Your task to perform on an android device: change text size in settings app Image 0: 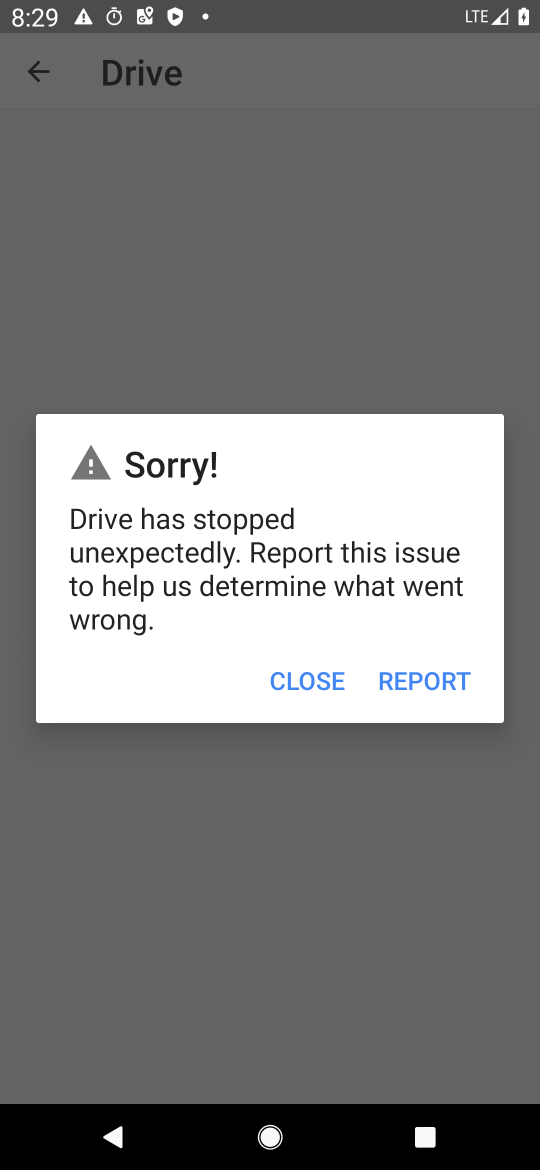
Step 0: press home button
Your task to perform on an android device: change text size in settings app Image 1: 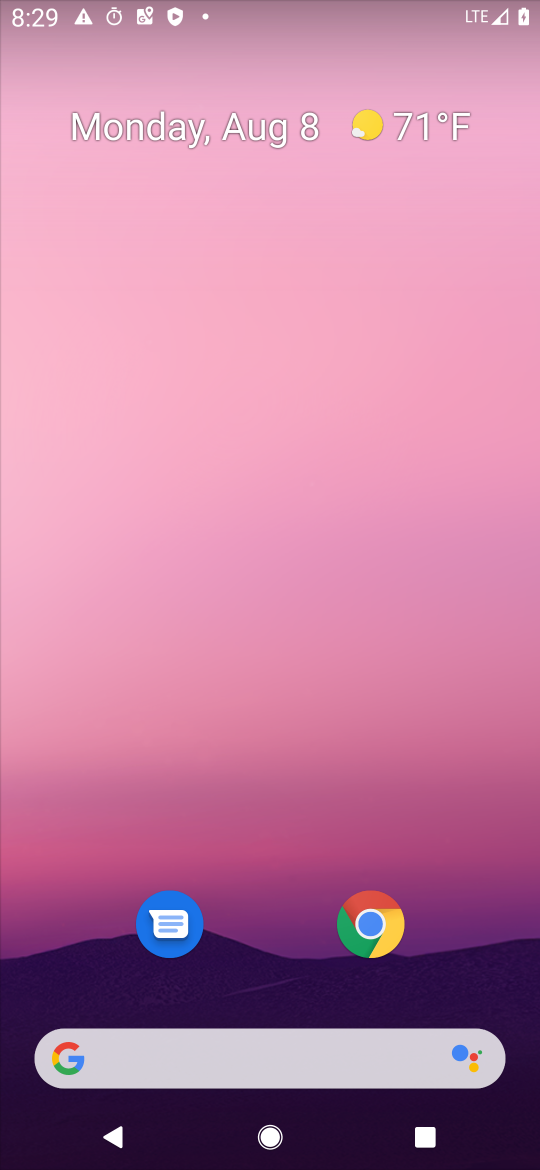
Step 1: drag from (231, 866) to (119, 75)
Your task to perform on an android device: change text size in settings app Image 2: 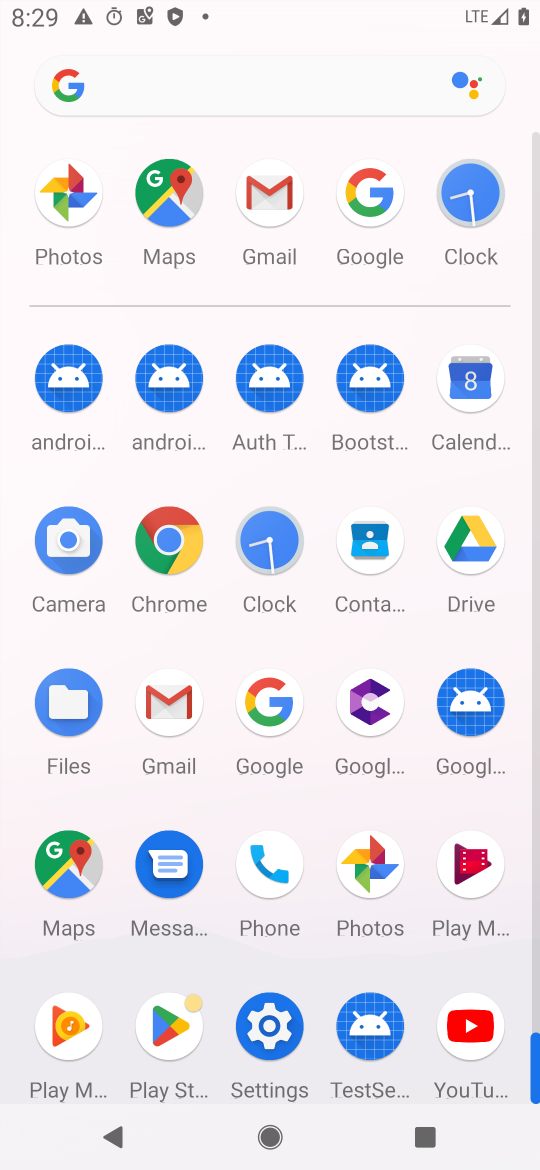
Step 2: click (257, 997)
Your task to perform on an android device: change text size in settings app Image 3: 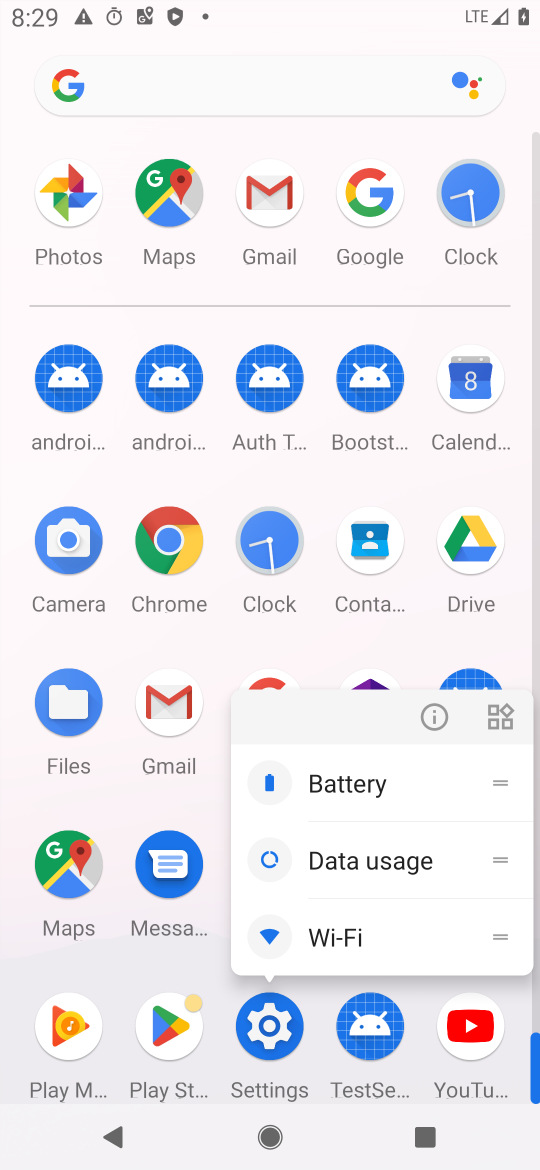
Step 3: click (421, 703)
Your task to perform on an android device: change text size in settings app Image 4: 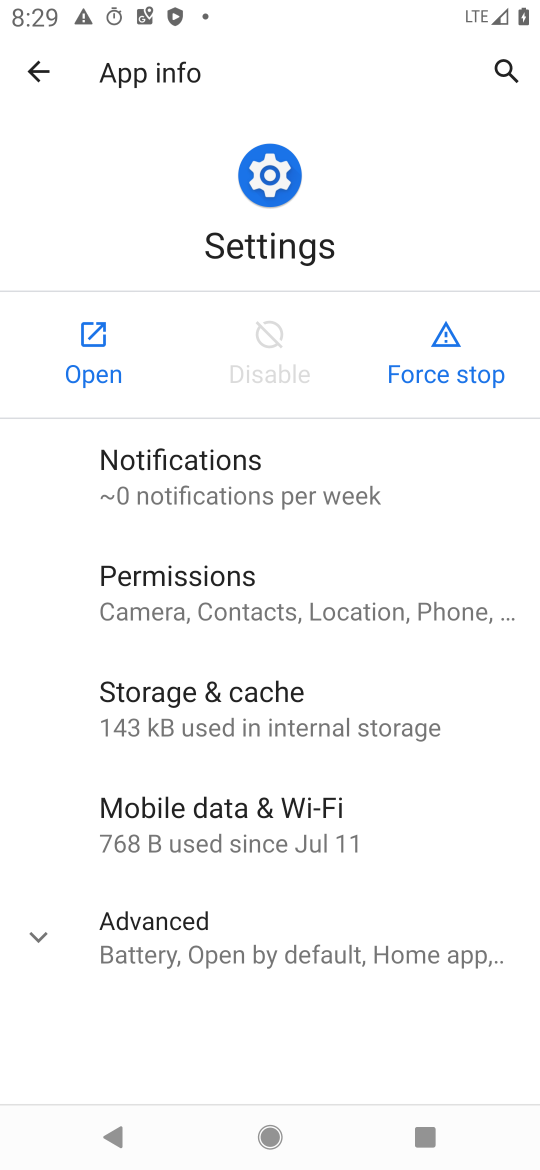
Step 4: click (98, 357)
Your task to perform on an android device: change text size in settings app Image 5: 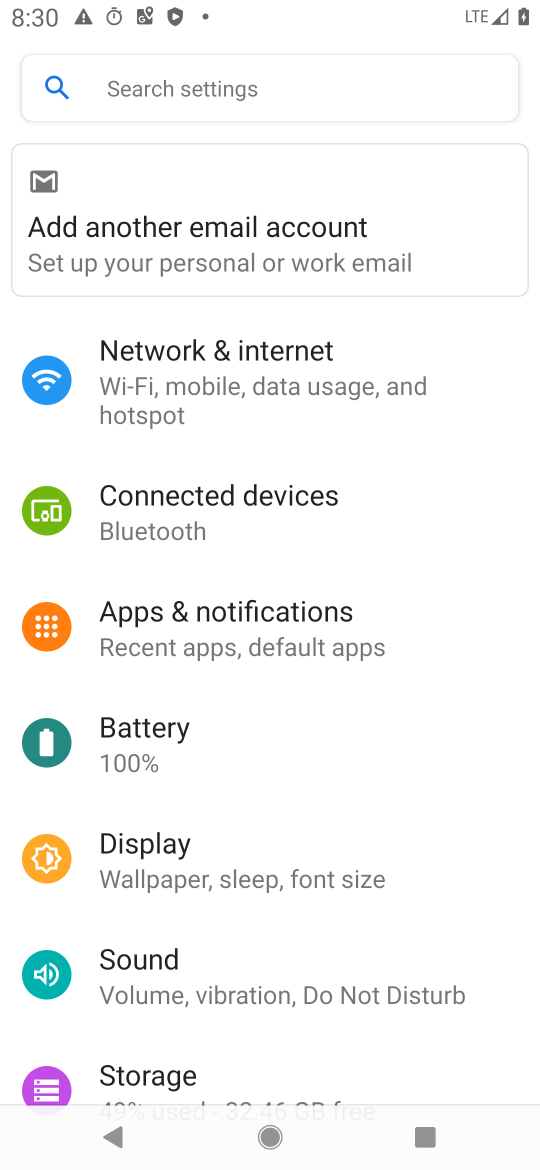
Step 5: drag from (171, 1016) to (138, 352)
Your task to perform on an android device: change text size in settings app Image 6: 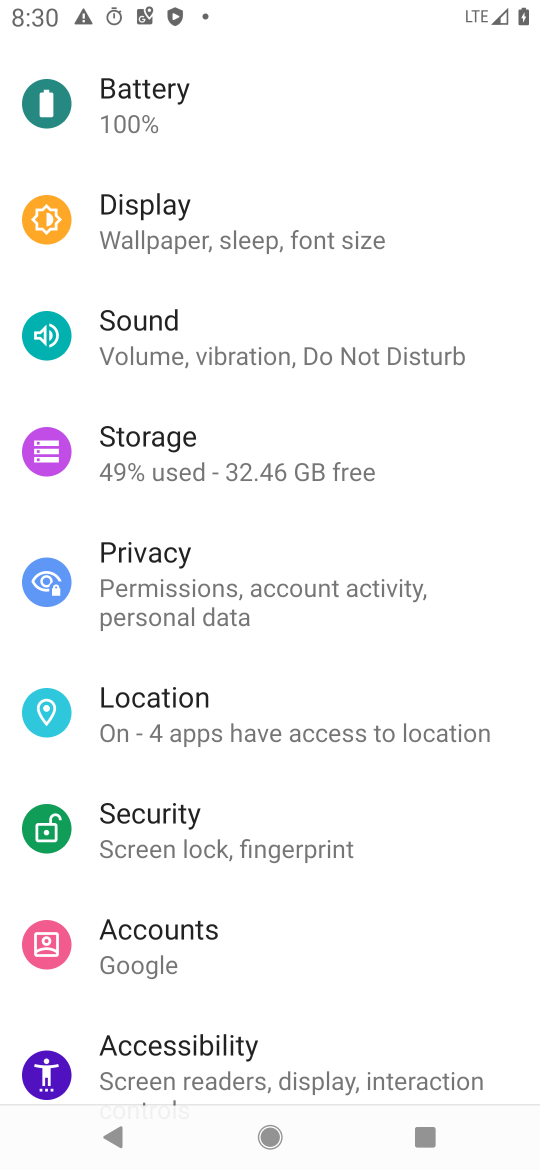
Step 6: click (188, 211)
Your task to perform on an android device: change text size in settings app Image 7: 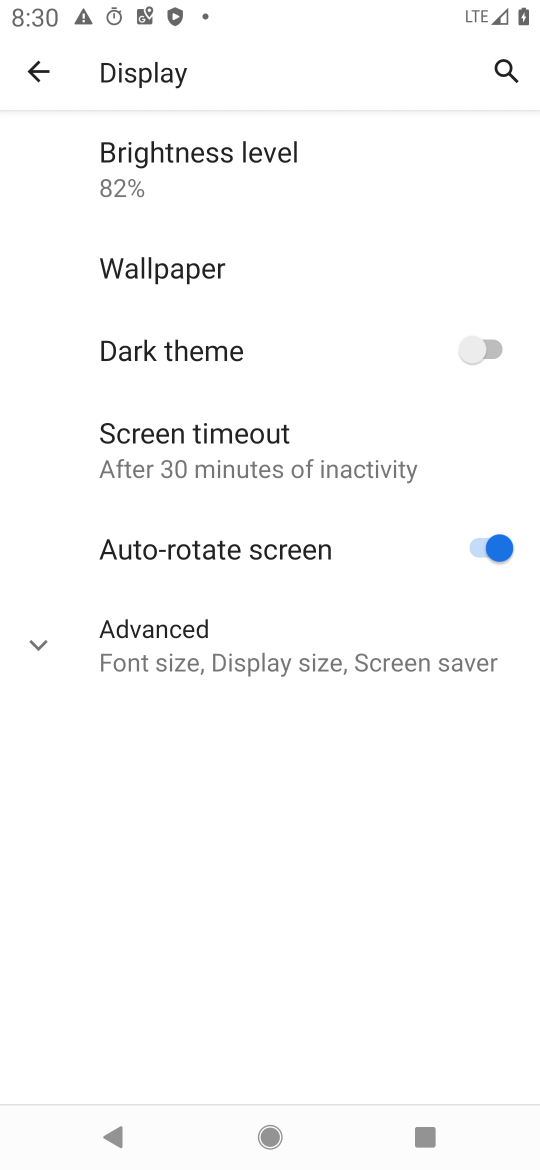
Step 7: click (239, 664)
Your task to perform on an android device: change text size in settings app Image 8: 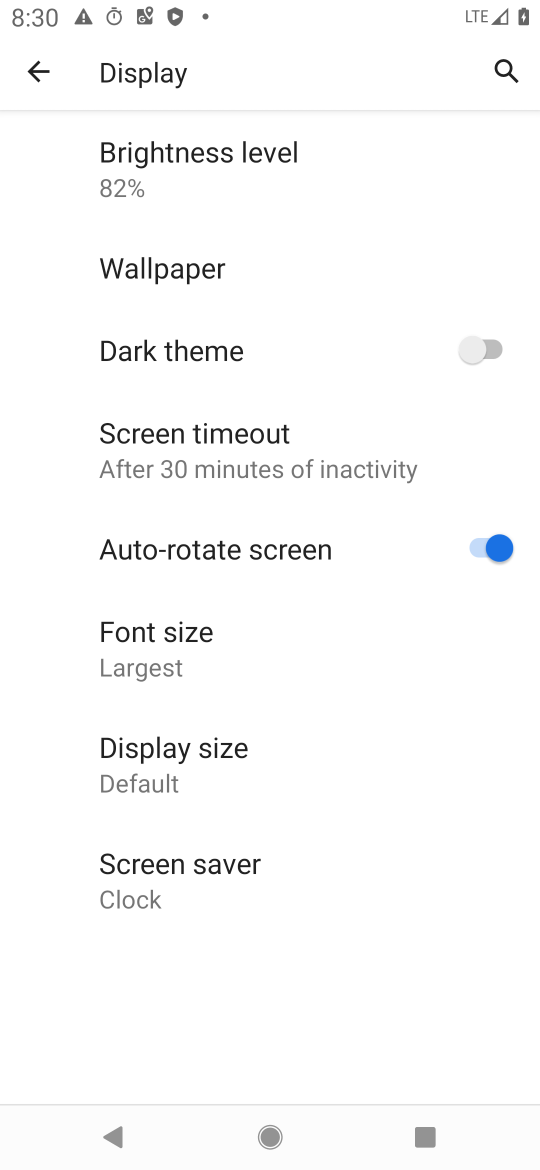
Step 8: click (188, 660)
Your task to perform on an android device: change text size in settings app Image 9: 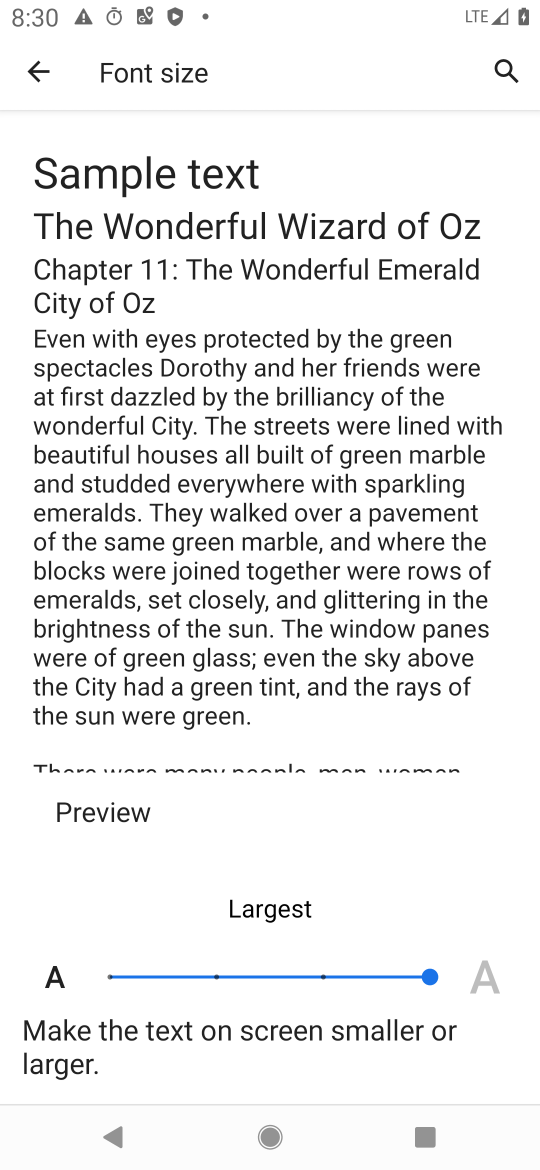
Step 9: click (214, 975)
Your task to perform on an android device: change text size in settings app Image 10: 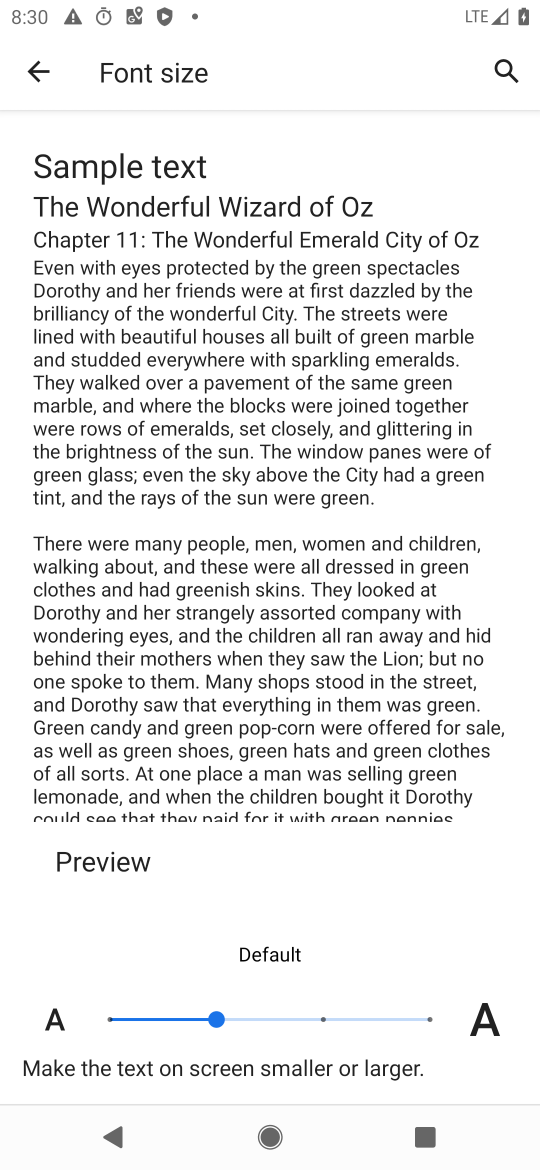
Step 10: task complete